Your task to perform on an android device: What's the weather today? Image 0: 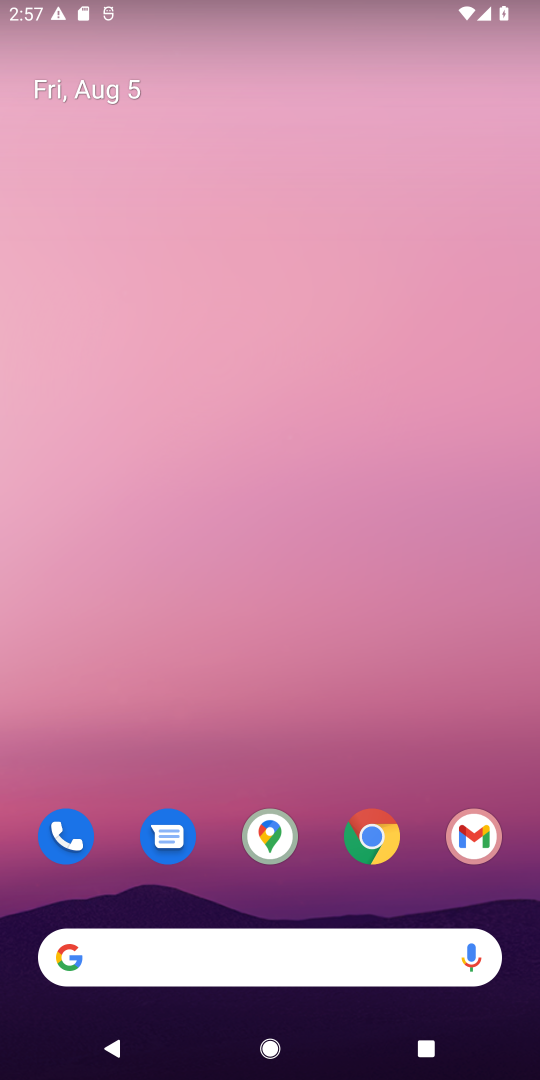
Step 0: drag from (306, 726) to (373, 43)
Your task to perform on an android device: What's the weather today? Image 1: 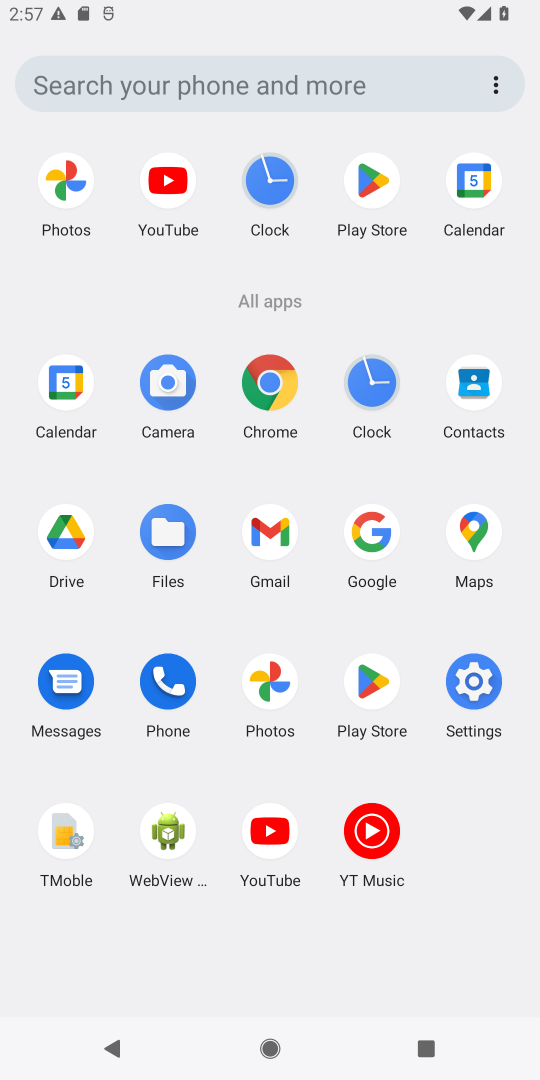
Step 1: click (393, 542)
Your task to perform on an android device: What's the weather today? Image 2: 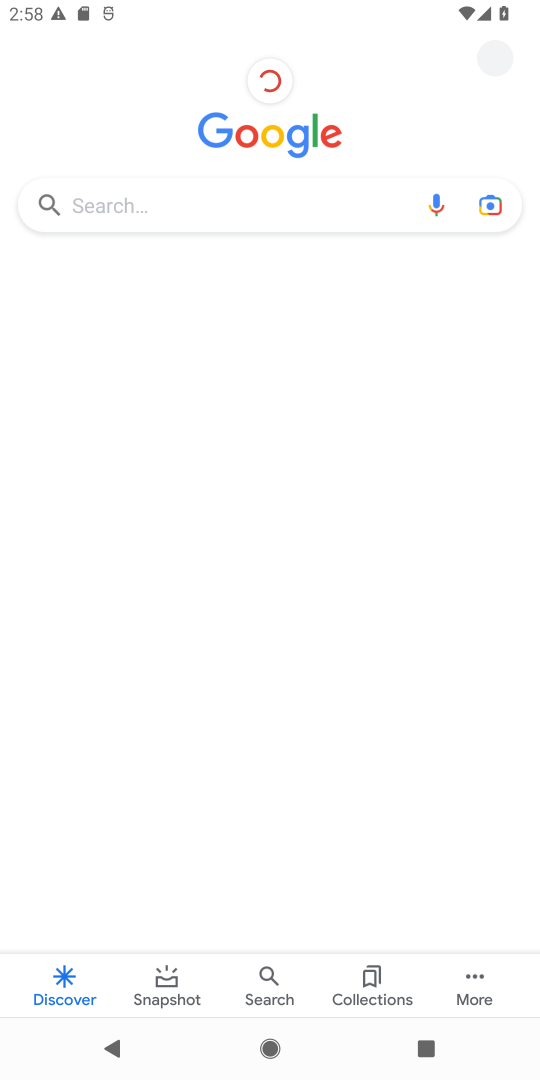
Step 2: click (188, 202)
Your task to perform on an android device: What's the weather today? Image 3: 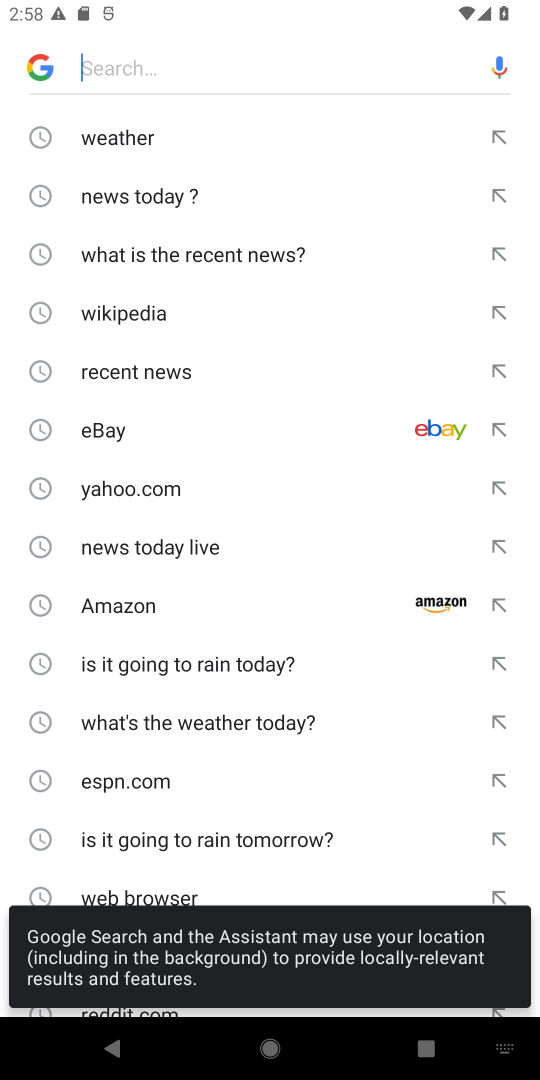
Step 3: click (76, 143)
Your task to perform on an android device: What's the weather today? Image 4: 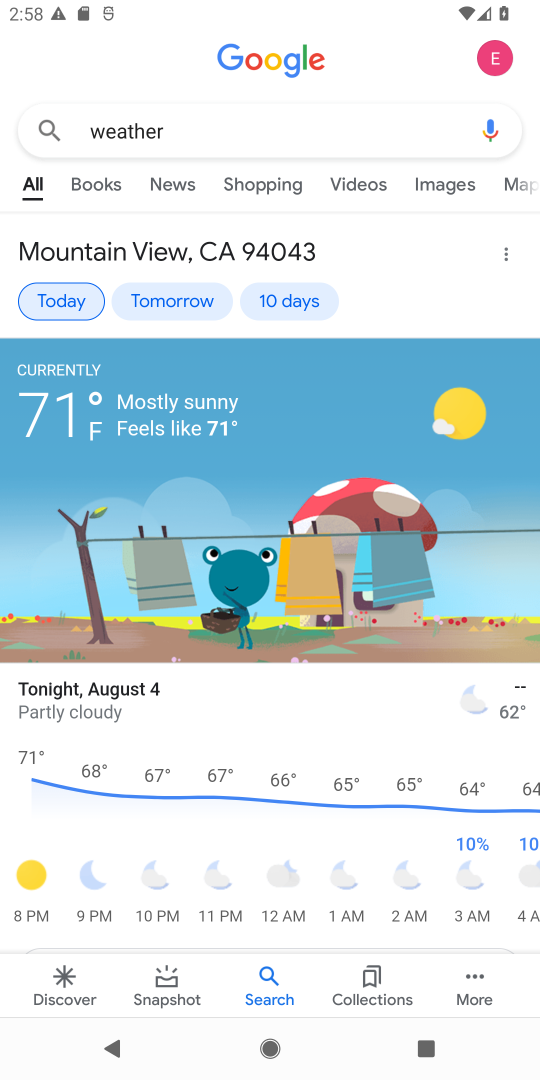
Step 4: task complete